Your task to perform on an android device: Go to display settings Image 0: 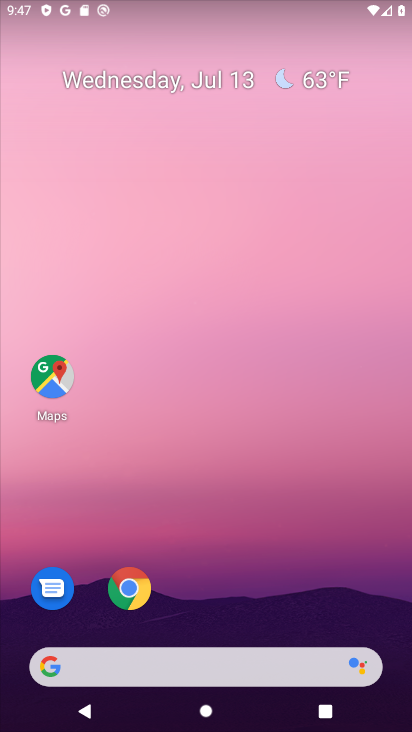
Step 0: drag from (256, 574) to (170, 199)
Your task to perform on an android device: Go to display settings Image 1: 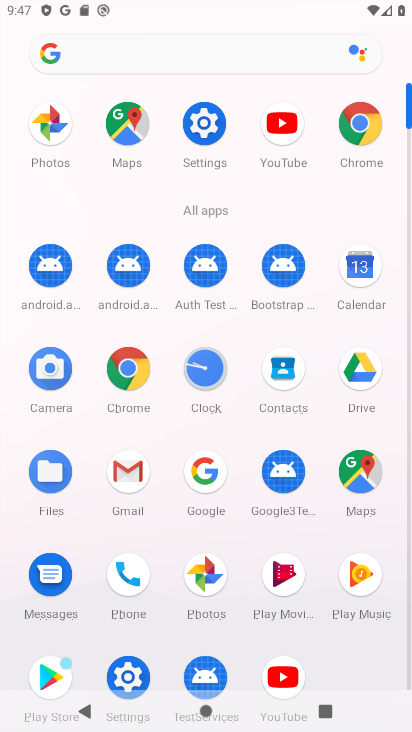
Step 1: click (200, 119)
Your task to perform on an android device: Go to display settings Image 2: 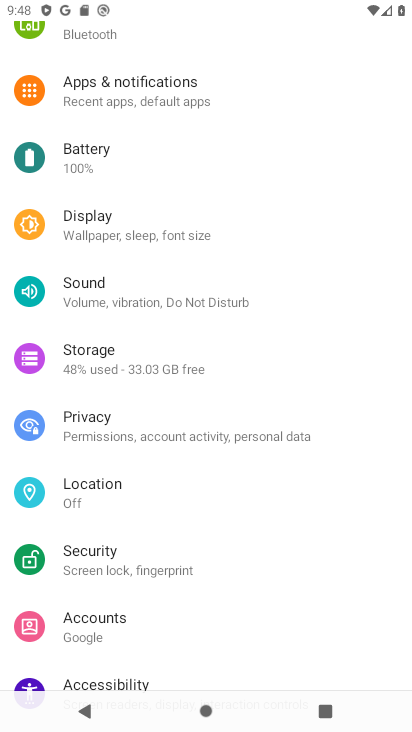
Step 2: click (89, 210)
Your task to perform on an android device: Go to display settings Image 3: 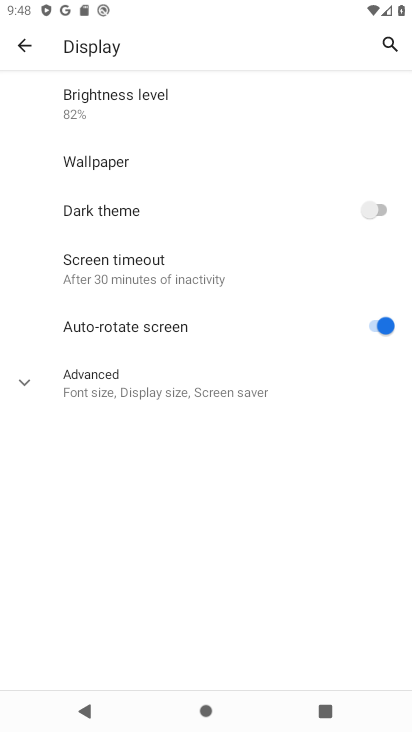
Step 3: task complete